Your task to perform on an android device: Go to location settings Image 0: 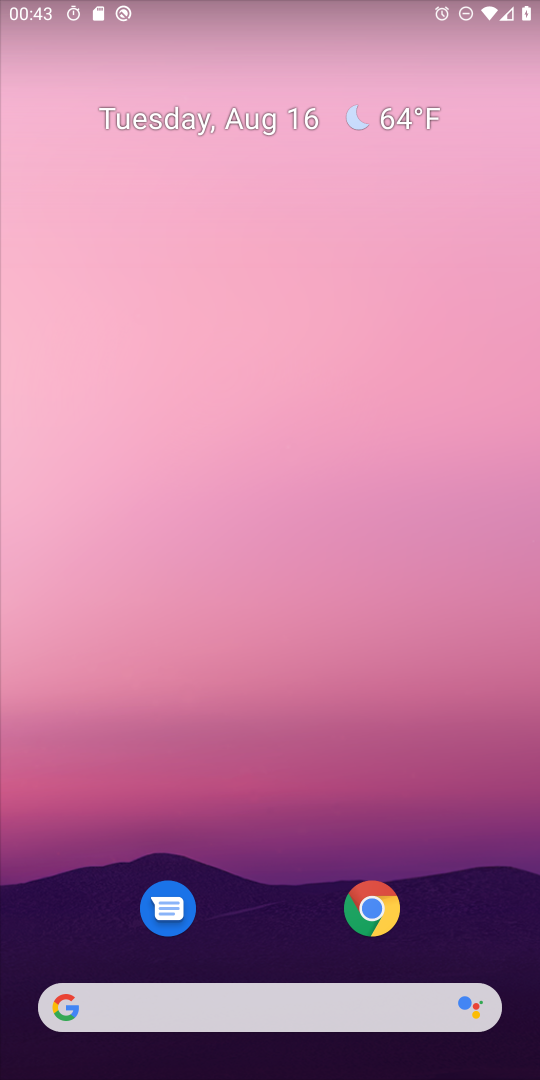
Step 0: drag from (290, 915) to (195, 103)
Your task to perform on an android device: Go to location settings Image 1: 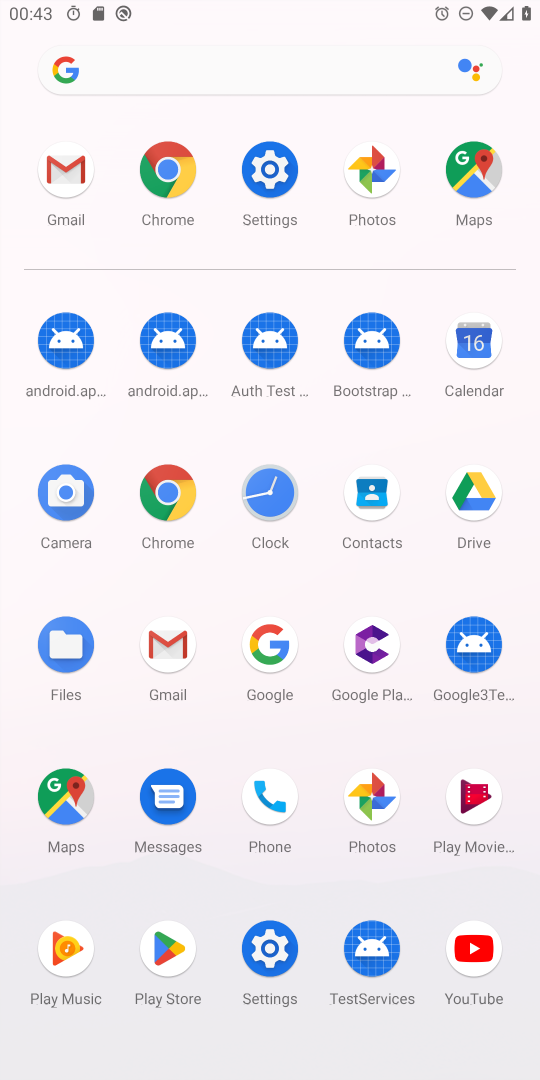
Step 1: click (265, 140)
Your task to perform on an android device: Go to location settings Image 2: 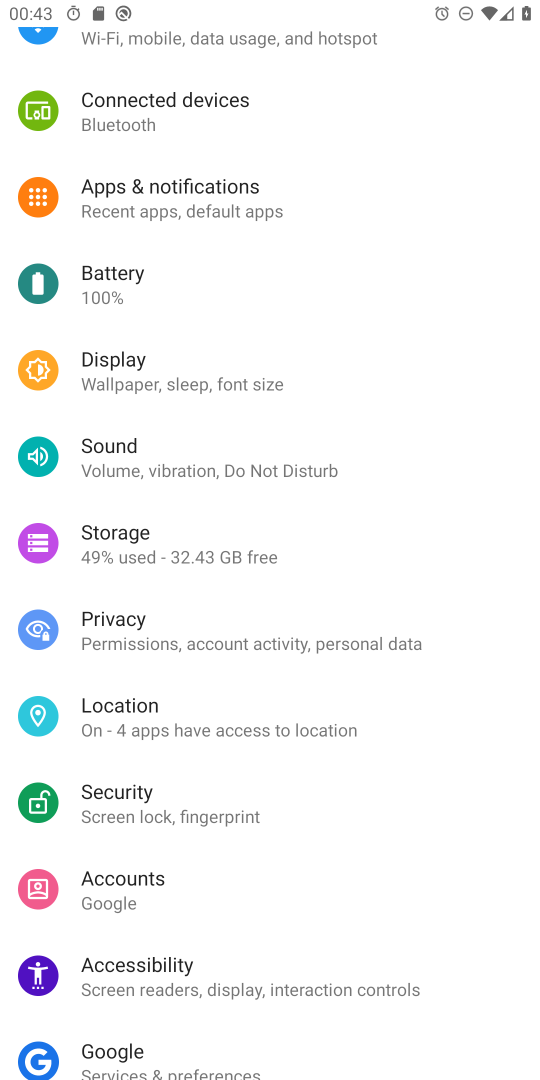
Step 2: click (190, 749)
Your task to perform on an android device: Go to location settings Image 3: 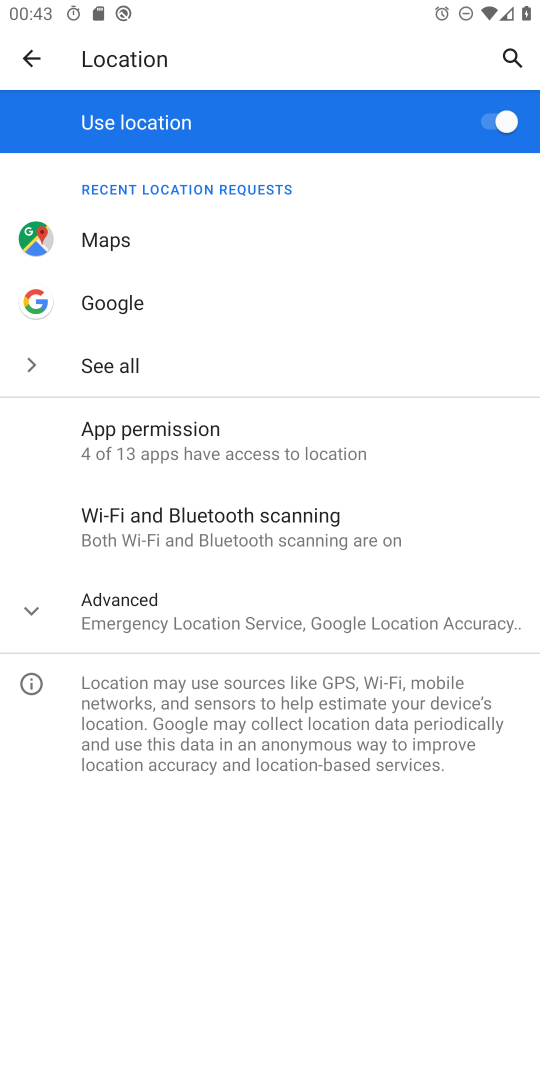
Step 3: task complete